Your task to perform on an android device: Go to internet settings Image 0: 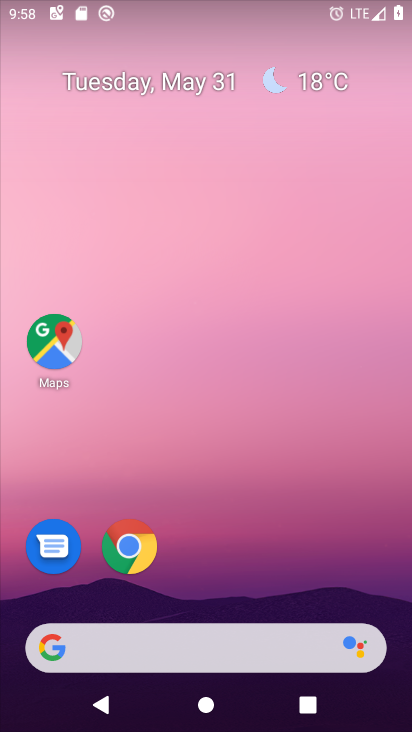
Step 0: drag from (194, 604) to (273, 238)
Your task to perform on an android device: Go to internet settings Image 1: 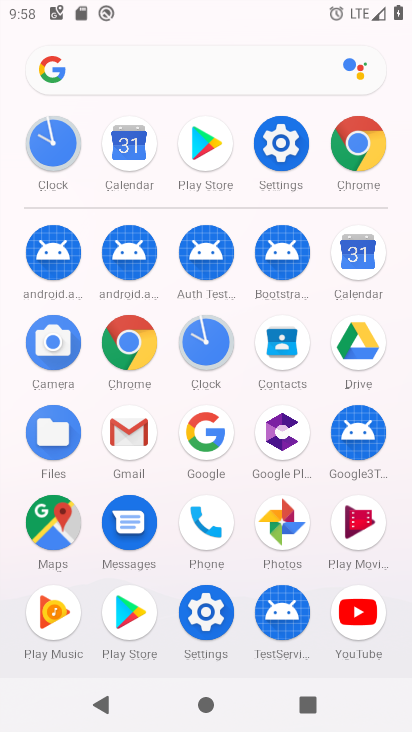
Step 1: click (295, 161)
Your task to perform on an android device: Go to internet settings Image 2: 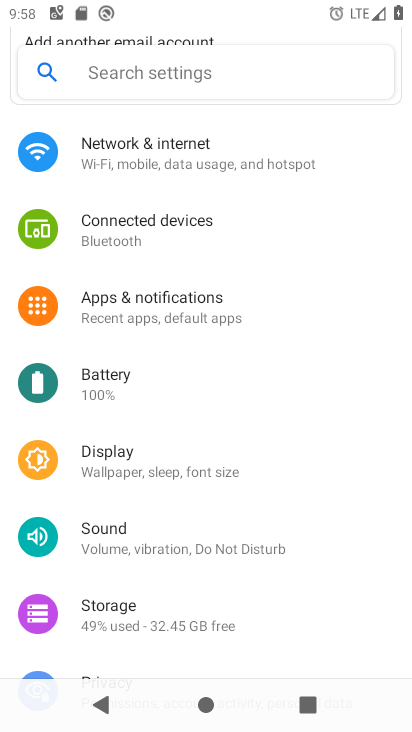
Step 2: click (180, 176)
Your task to perform on an android device: Go to internet settings Image 3: 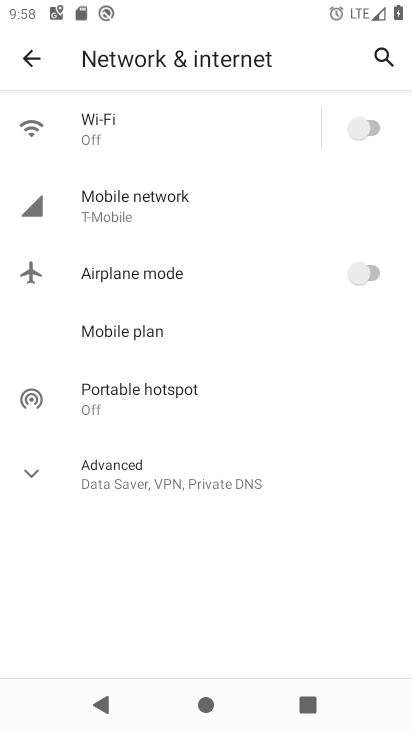
Step 3: task complete